Your task to perform on an android device: Open the calendar and show me this week's events? Image 0: 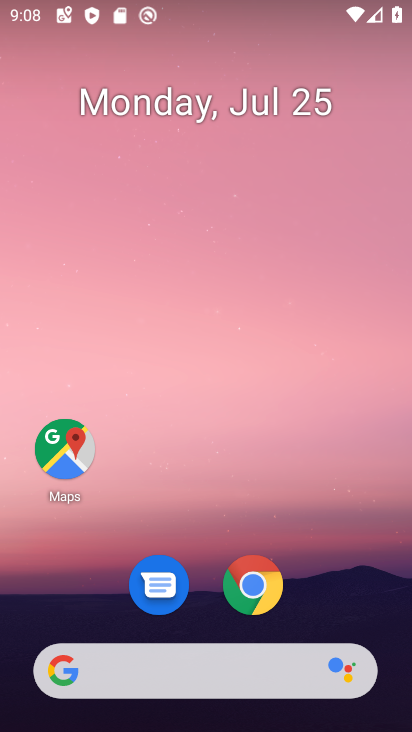
Step 0: press home button
Your task to perform on an android device: Open the calendar and show me this week's events? Image 1: 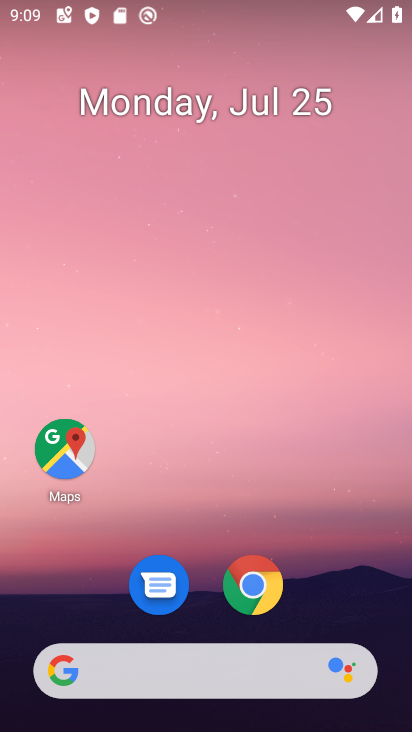
Step 1: drag from (173, 669) to (312, 77)
Your task to perform on an android device: Open the calendar and show me this week's events? Image 2: 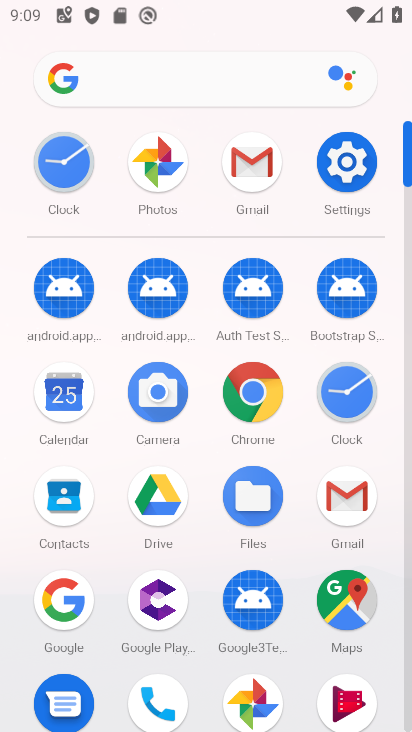
Step 2: click (65, 399)
Your task to perform on an android device: Open the calendar and show me this week's events? Image 3: 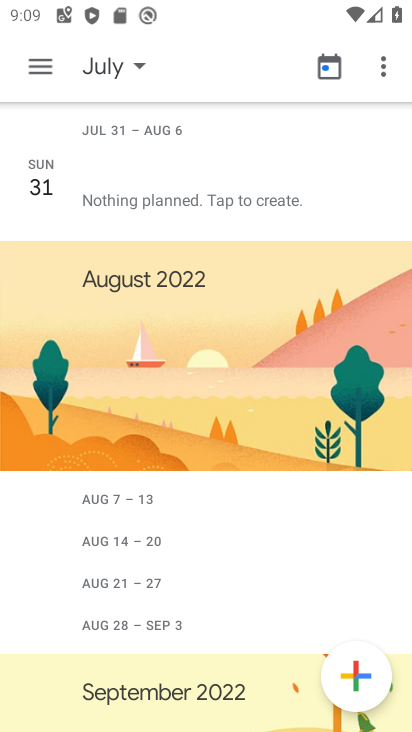
Step 3: click (59, 410)
Your task to perform on an android device: Open the calendar and show me this week's events? Image 4: 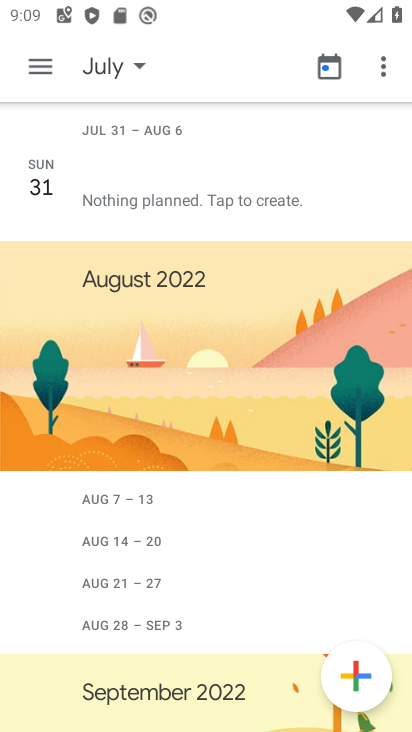
Step 4: click (105, 67)
Your task to perform on an android device: Open the calendar and show me this week's events? Image 5: 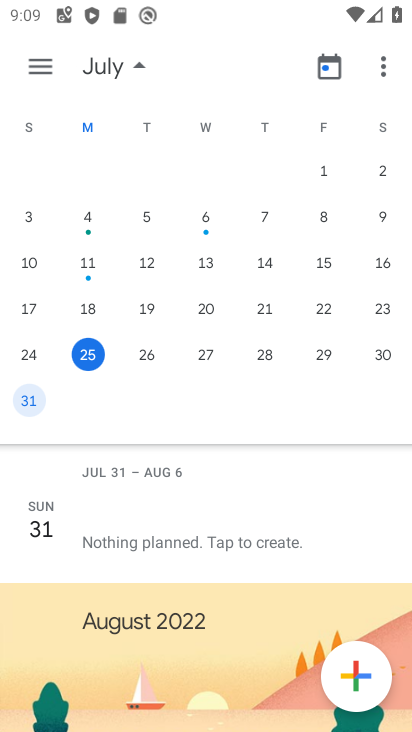
Step 5: click (88, 346)
Your task to perform on an android device: Open the calendar and show me this week's events? Image 6: 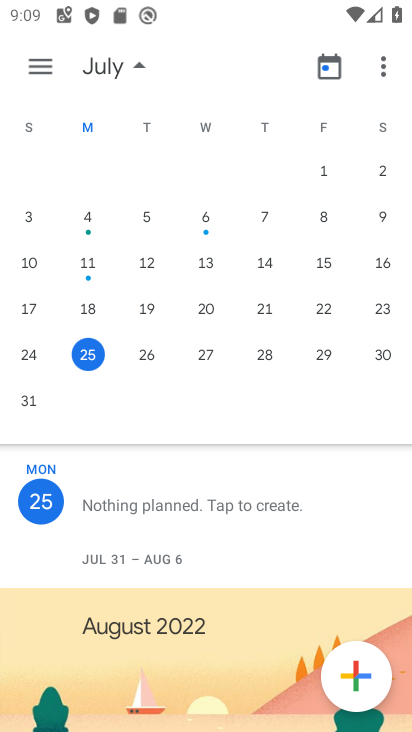
Step 6: click (33, 62)
Your task to perform on an android device: Open the calendar and show me this week's events? Image 7: 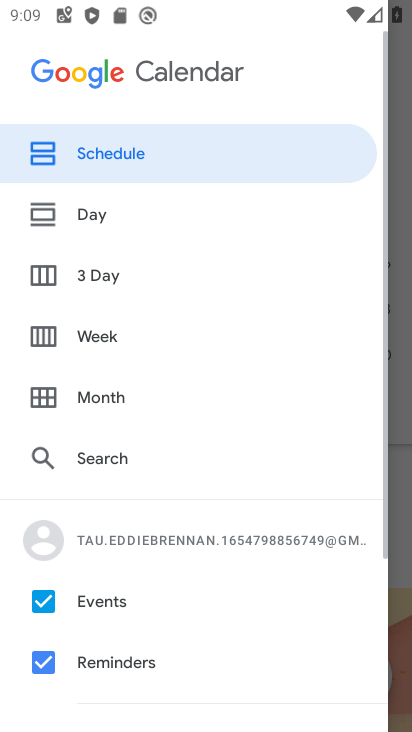
Step 7: click (96, 333)
Your task to perform on an android device: Open the calendar and show me this week's events? Image 8: 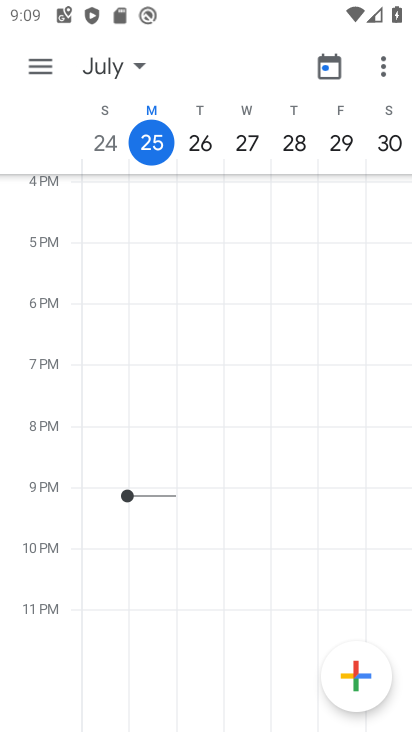
Step 8: click (41, 67)
Your task to perform on an android device: Open the calendar and show me this week's events? Image 9: 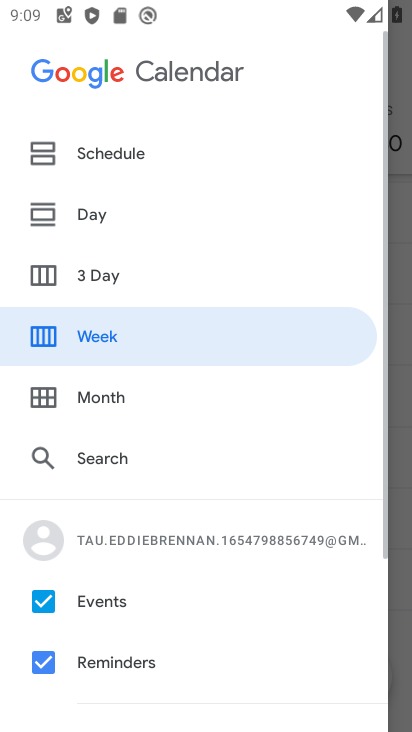
Step 9: click (128, 154)
Your task to perform on an android device: Open the calendar and show me this week's events? Image 10: 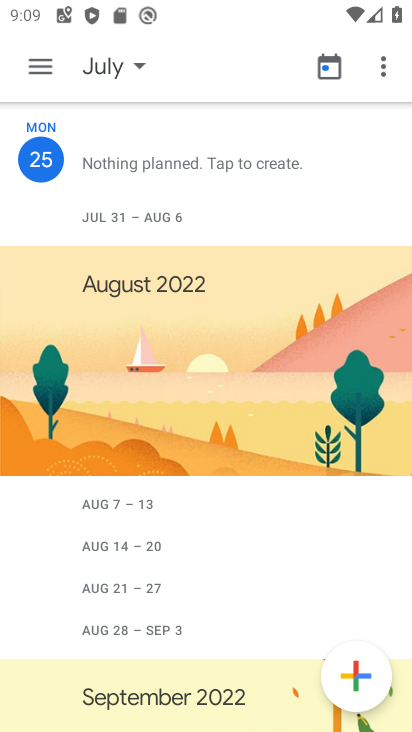
Step 10: task complete